Your task to perform on an android device: Clear the cart on target.com. Image 0: 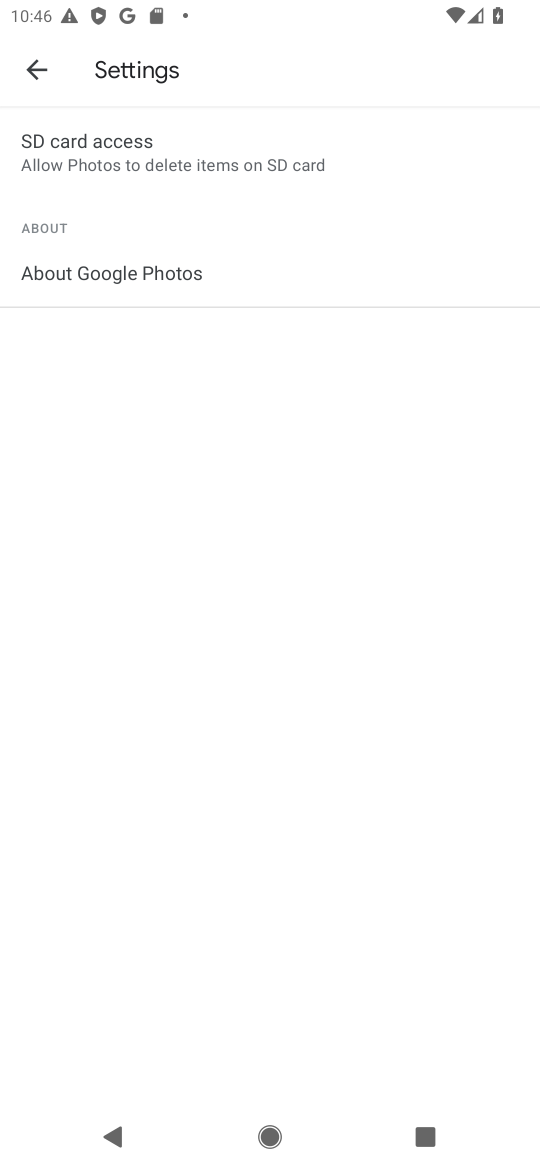
Step 0: press home button
Your task to perform on an android device: Clear the cart on target.com. Image 1: 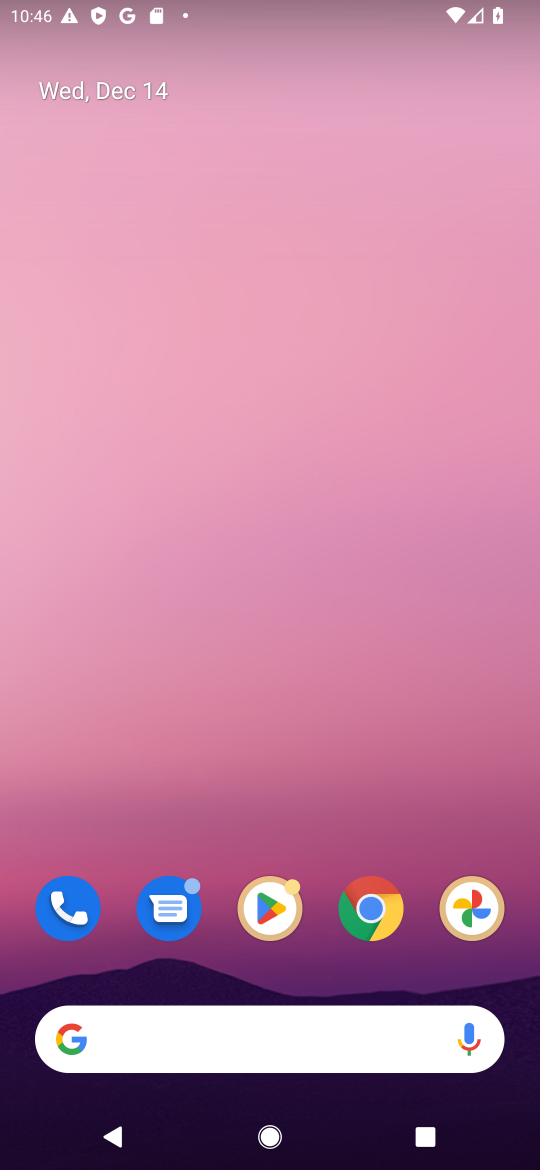
Step 1: click (364, 929)
Your task to perform on an android device: Clear the cart on target.com. Image 2: 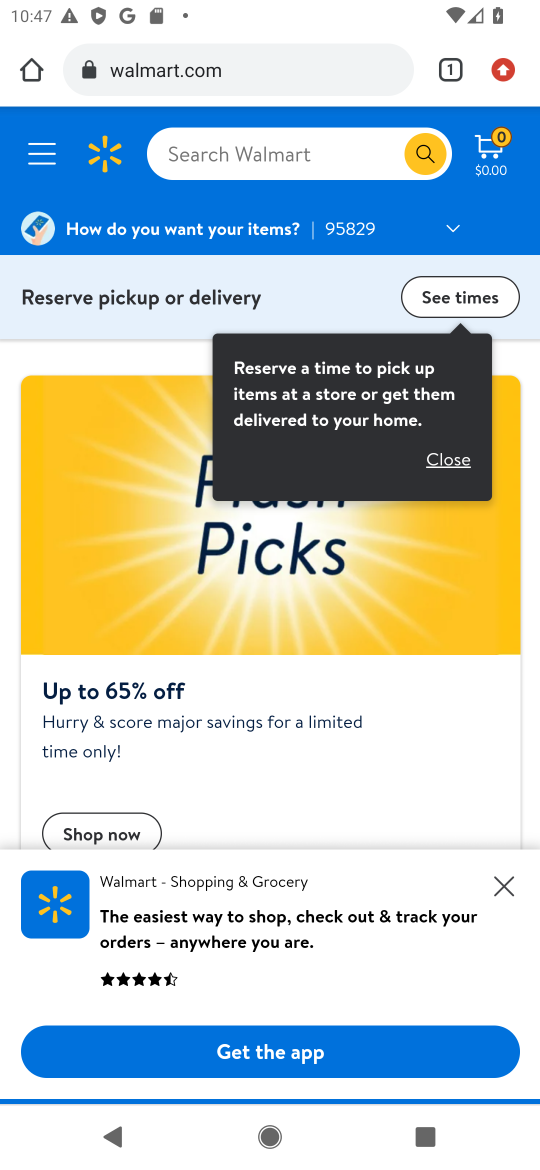
Step 2: click (251, 164)
Your task to perform on an android device: Clear the cart on target.com. Image 3: 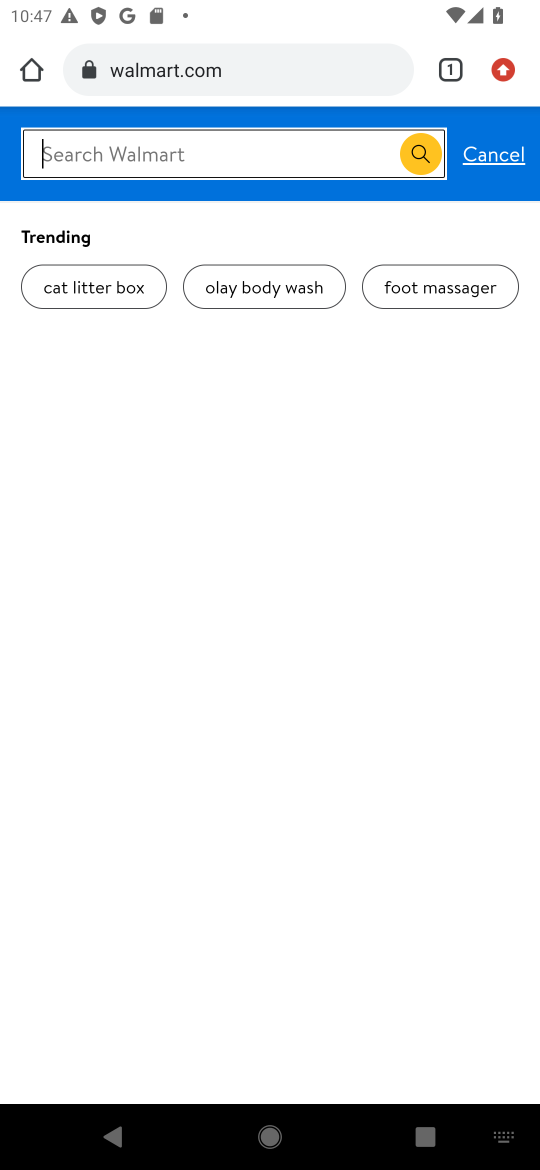
Step 3: click (287, 54)
Your task to perform on an android device: Clear the cart on target.com. Image 4: 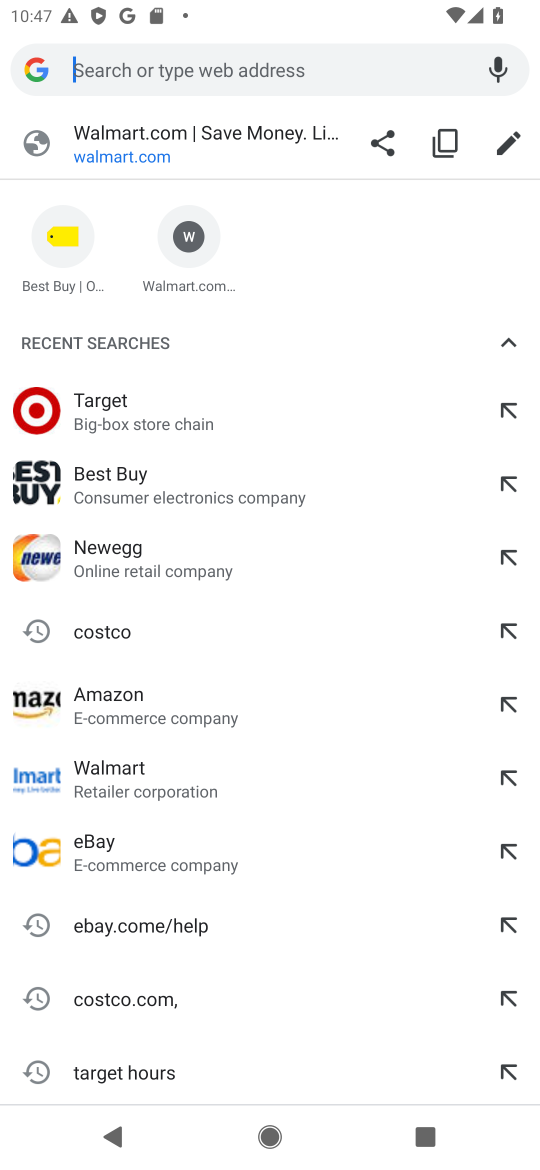
Step 4: click (126, 422)
Your task to perform on an android device: Clear the cart on target.com. Image 5: 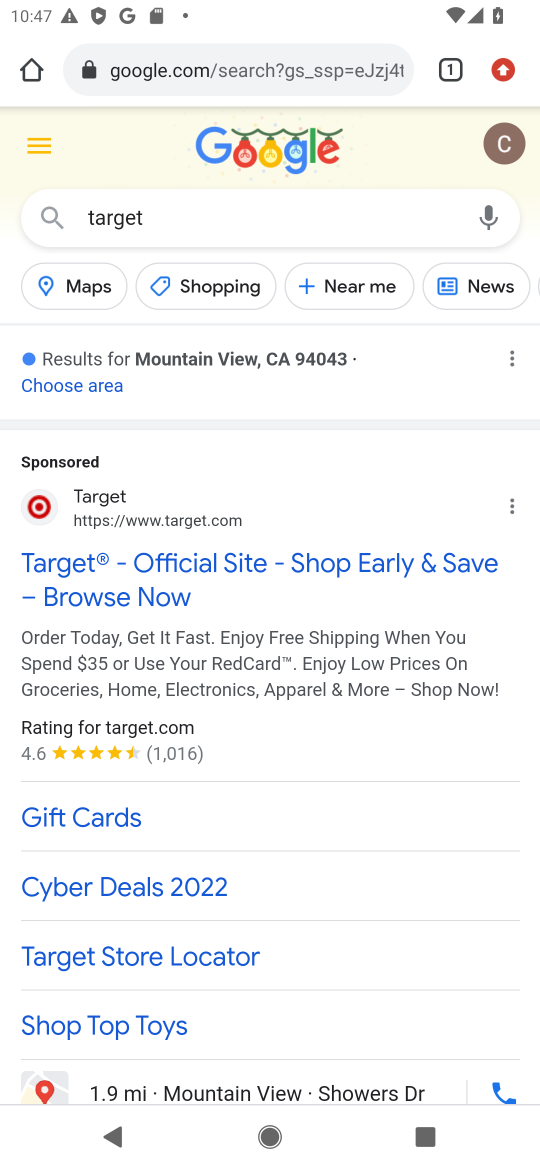
Step 5: click (81, 575)
Your task to perform on an android device: Clear the cart on target.com. Image 6: 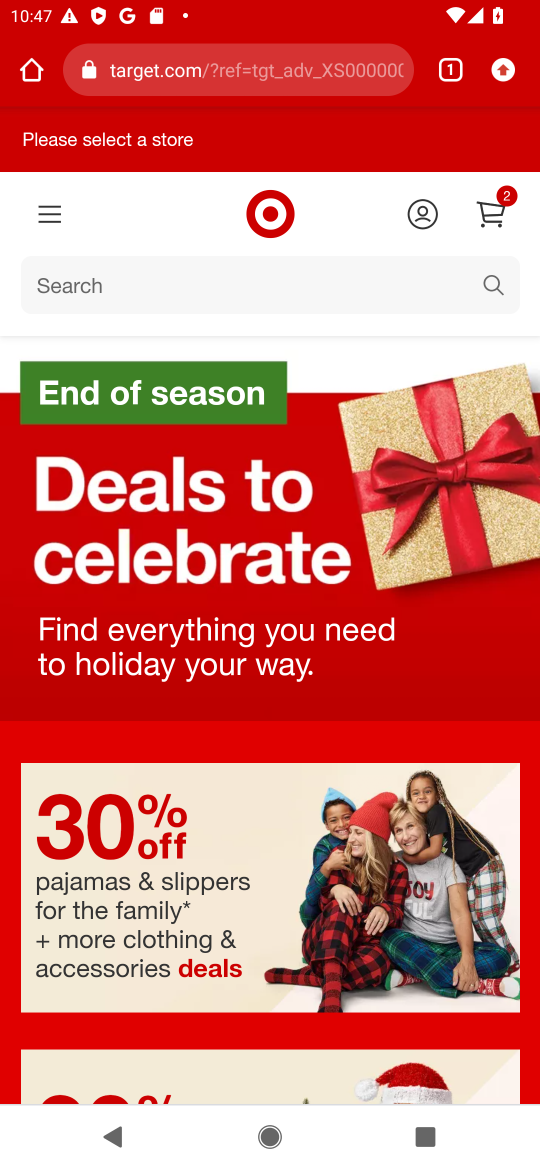
Step 6: click (253, 294)
Your task to perform on an android device: Clear the cart on target.com. Image 7: 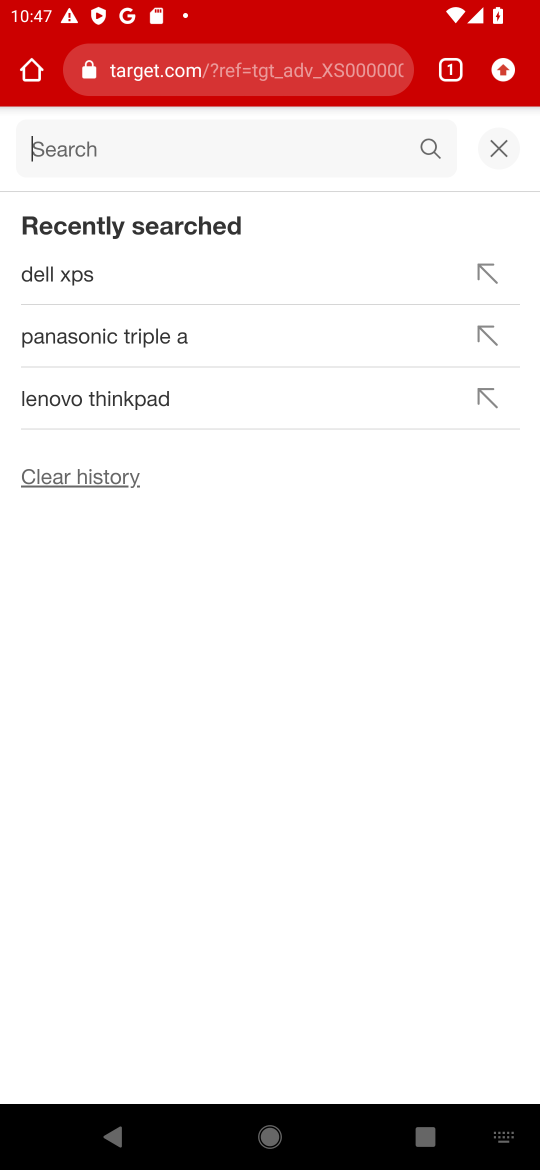
Step 7: click (497, 137)
Your task to perform on an android device: Clear the cart on target.com. Image 8: 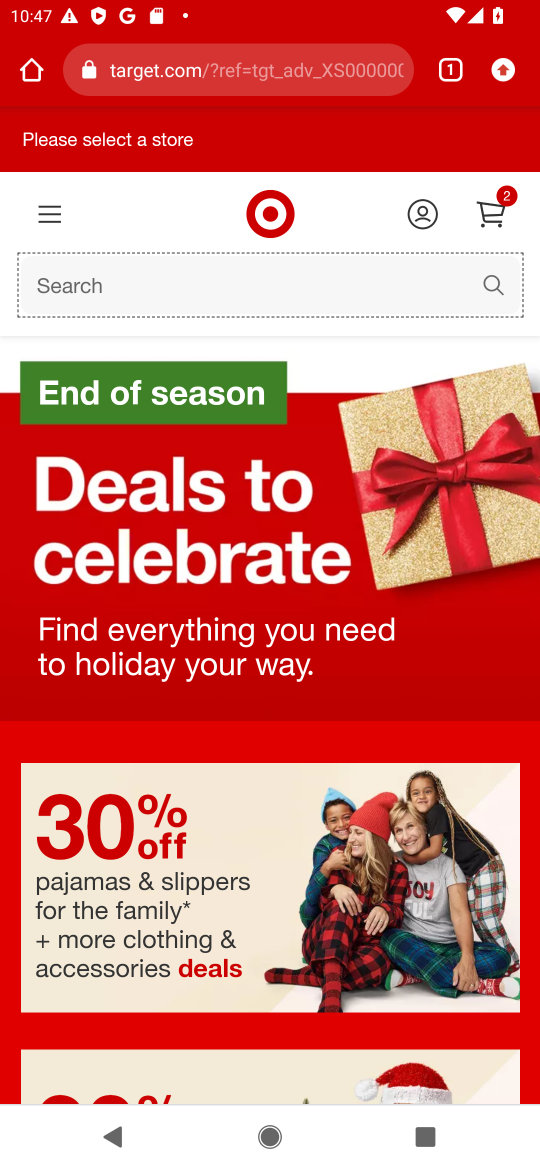
Step 8: click (490, 201)
Your task to perform on an android device: Clear the cart on target.com. Image 9: 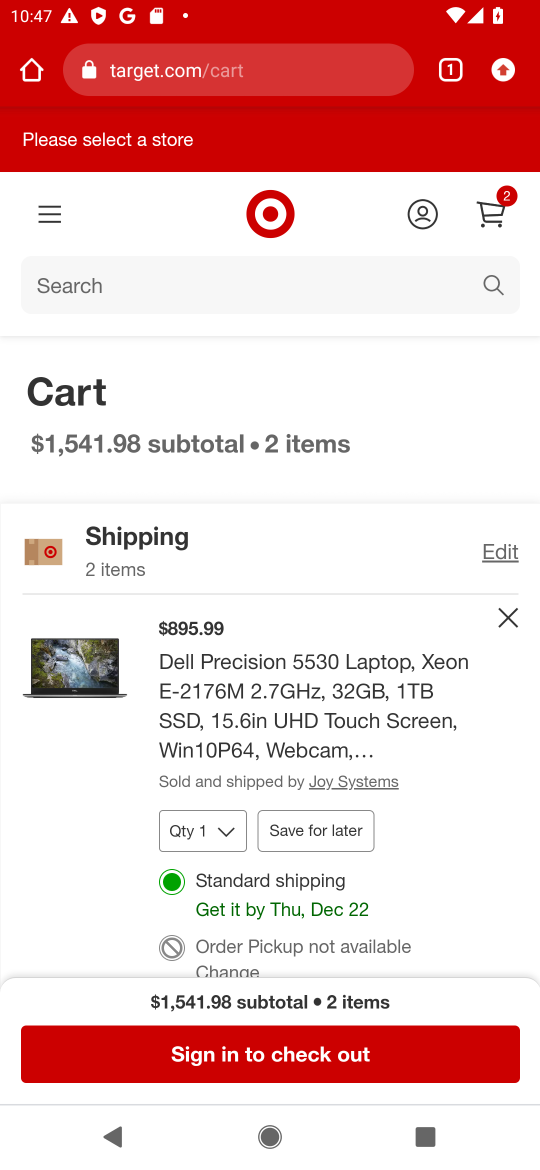
Step 9: click (504, 630)
Your task to perform on an android device: Clear the cart on target.com. Image 10: 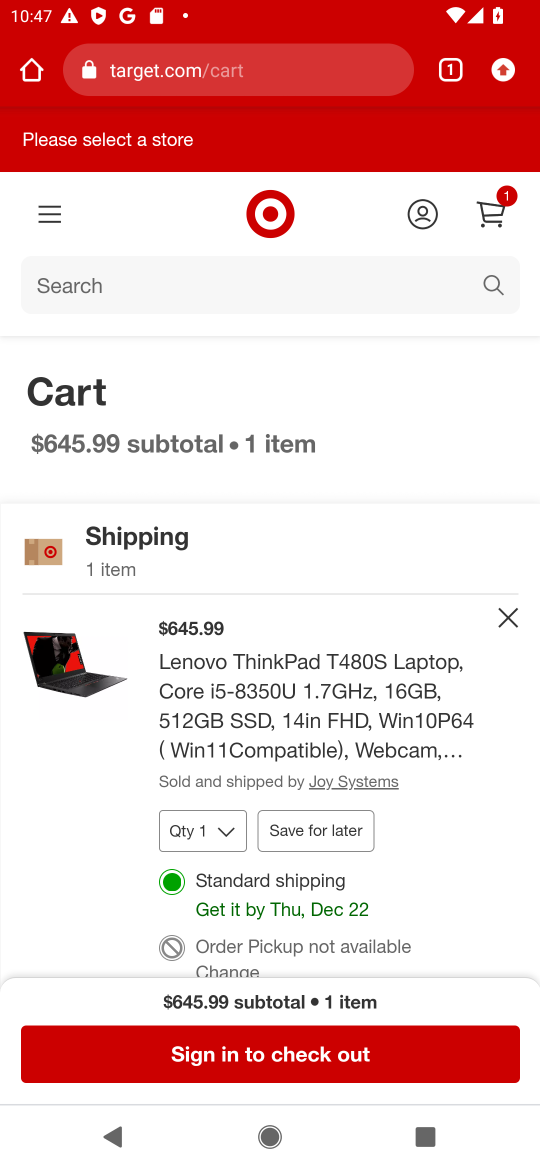
Step 10: click (499, 626)
Your task to perform on an android device: Clear the cart on target.com. Image 11: 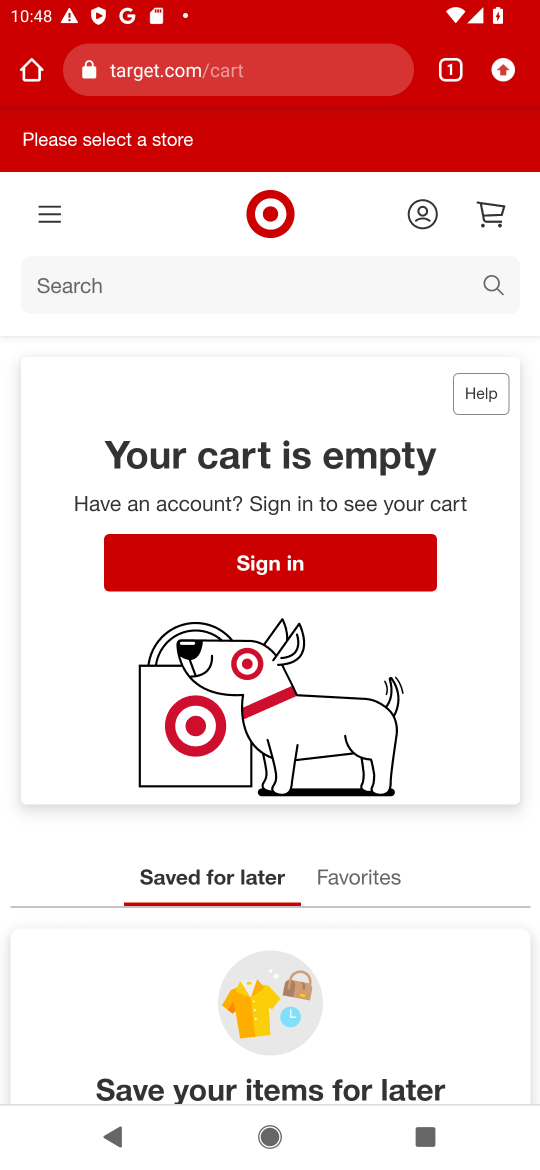
Step 11: task complete